Your task to perform on an android device: Open notification settings Image 0: 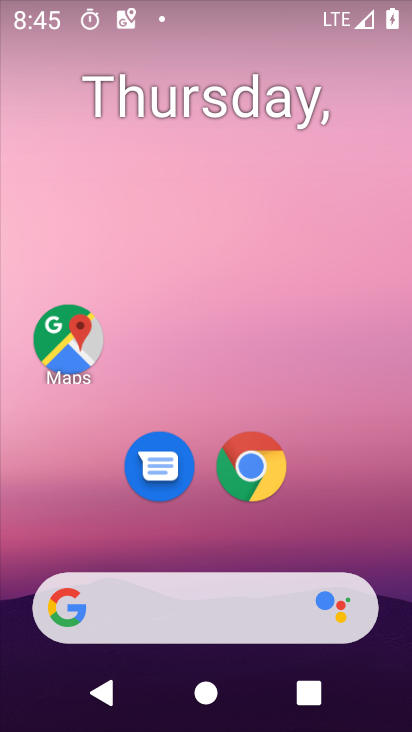
Step 0: drag from (342, 532) to (348, 157)
Your task to perform on an android device: Open notification settings Image 1: 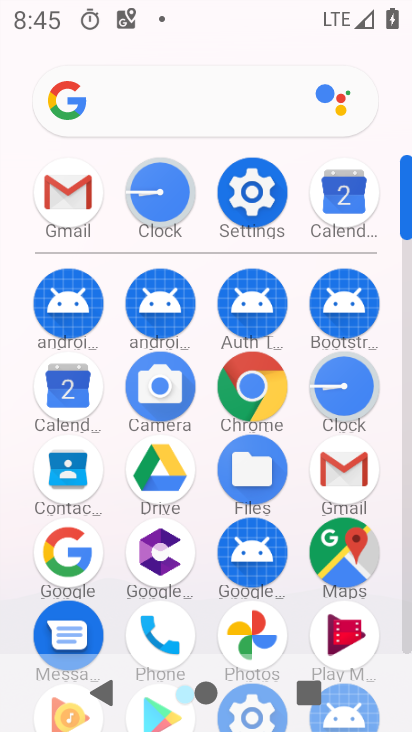
Step 1: click (235, 187)
Your task to perform on an android device: Open notification settings Image 2: 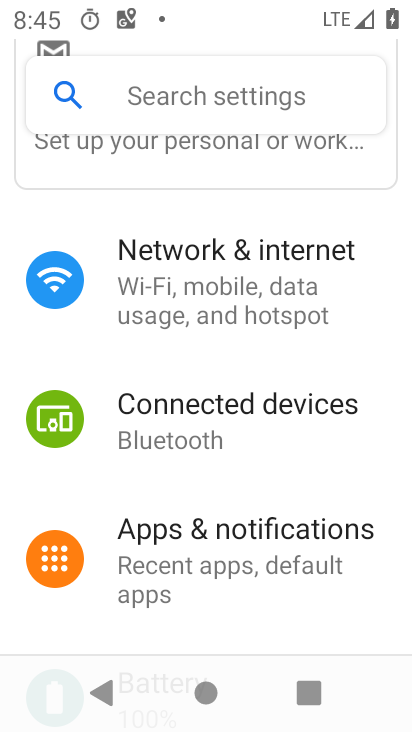
Step 2: click (294, 557)
Your task to perform on an android device: Open notification settings Image 3: 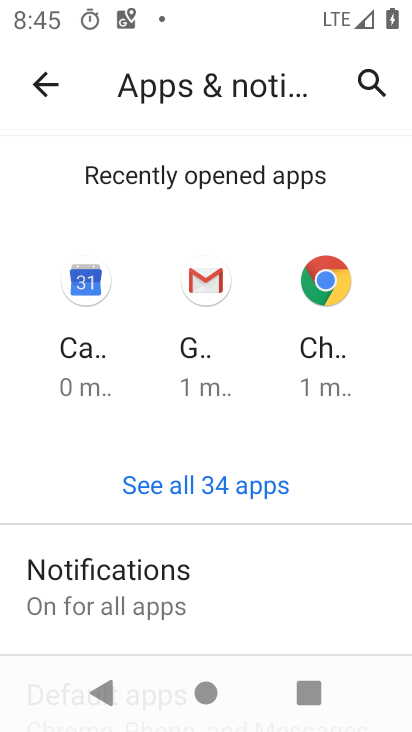
Step 3: drag from (304, 611) to (318, 160)
Your task to perform on an android device: Open notification settings Image 4: 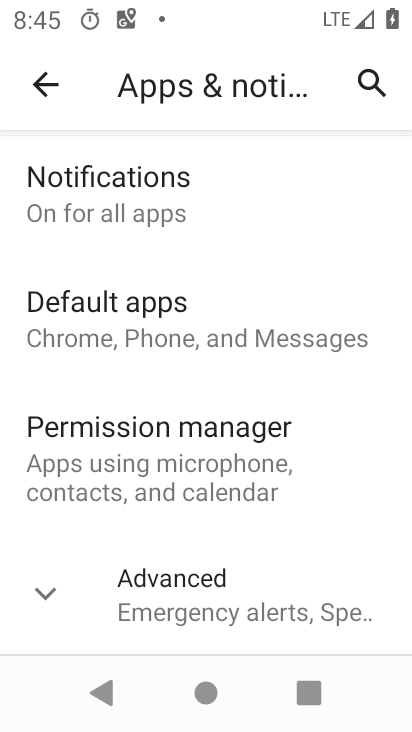
Step 4: click (179, 185)
Your task to perform on an android device: Open notification settings Image 5: 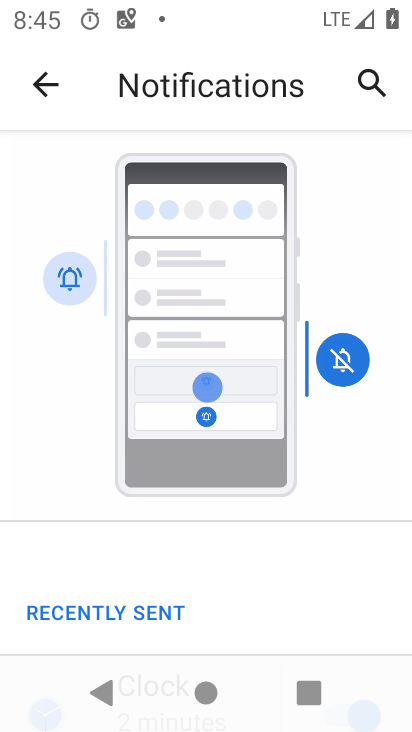
Step 5: task complete